Your task to perform on an android device: open chrome privacy settings Image 0: 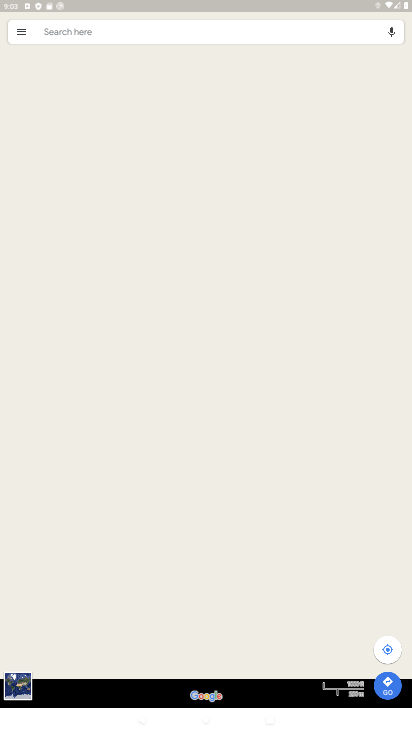
Step 0: click (164, 653)
Your task to perform on an android device: open chrome privacy settings Image 1: 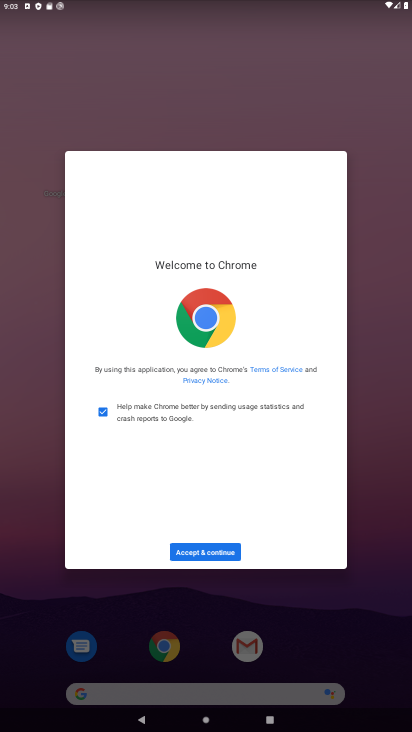
Step 1: click (232, 546)
Your task to perform on an android device: open chrome privacy settings Image 2: 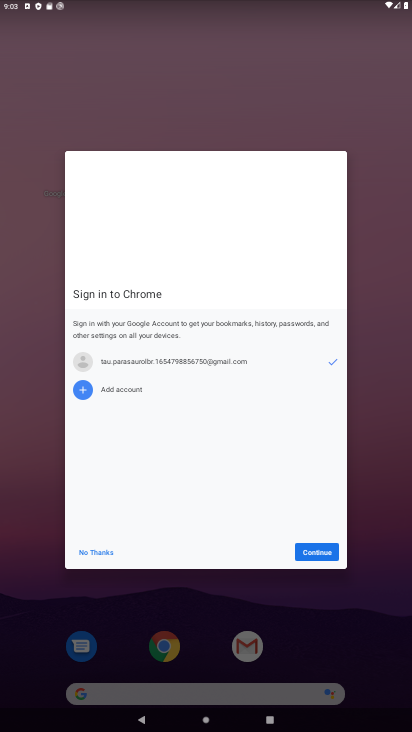
Step 2: click (306, 547)
Your task to perform on an android device: open chrome privacy settings Image 3: 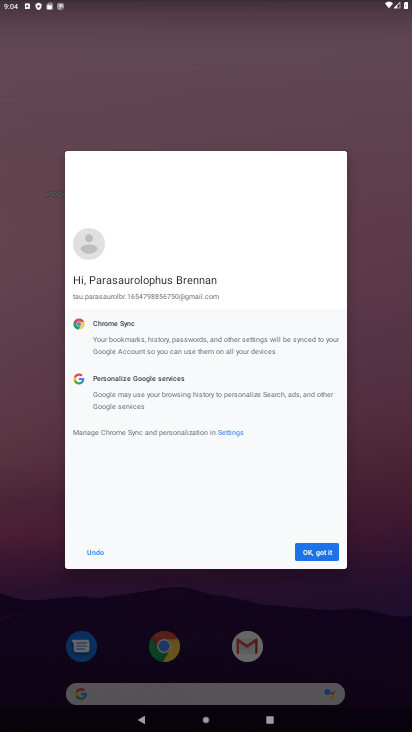
Step 3: click (313, 545)
Your task to perform on an android device: open chrome privacy settings Image 4: 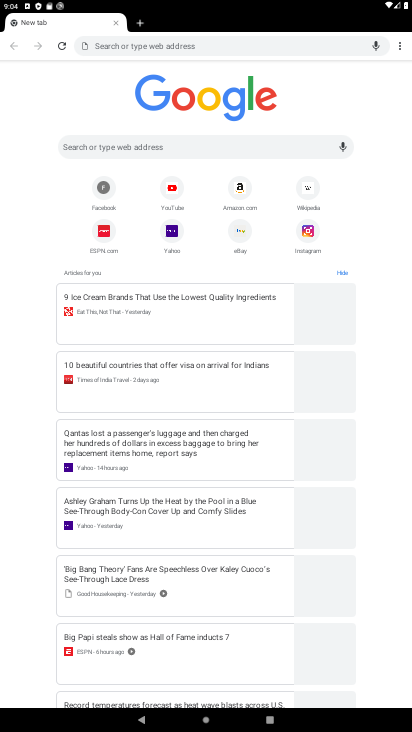
Step 4: click (401, 51)
Your task to perform on an android device: open chrome privacy settings Image 5: 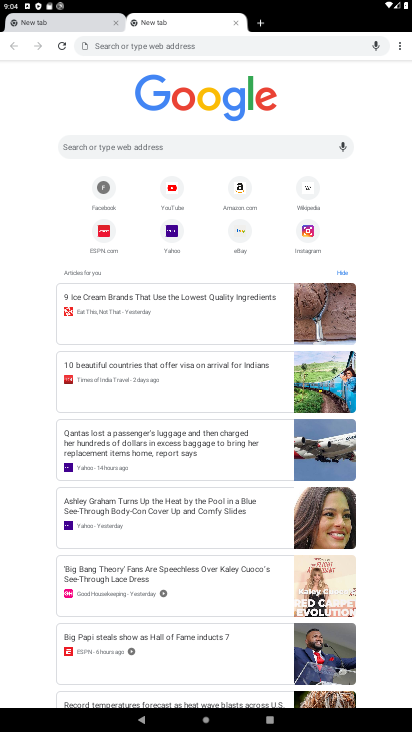
Step 5: click (400, 52)
Your task to perform on an android device: open chrome privacy settings Image 6: 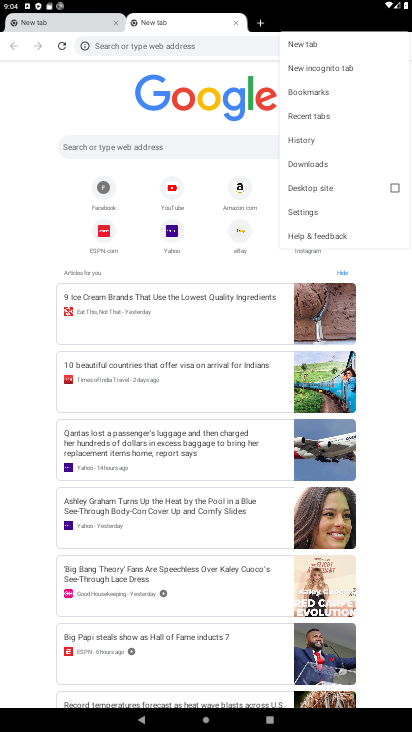
Step 6: click (309, 215)
Your task to perform on an android device: open chrome privacy settings Image 7: 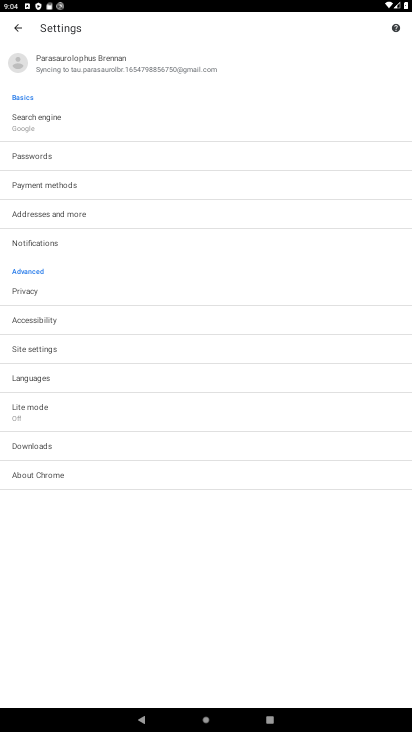
Step 7: click (28, 288)
Your task to perform on an android device: open chrome privacy settings Image 8: 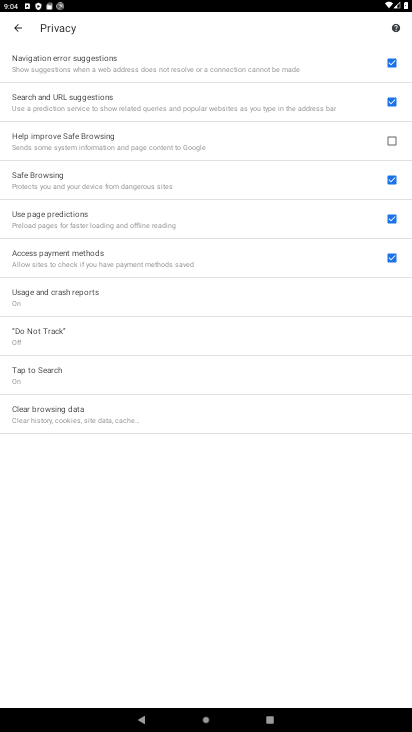
Step 8: task complete